Your task to perform on an android device: toggle notifications settings in the gmail app Image 0: 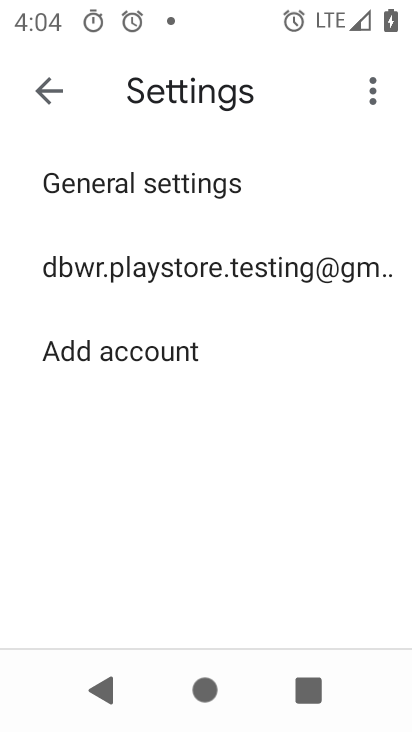
Step 0: press home button
Your task to perform on an android device: toggle notifications settings in the gmail app Image 1: 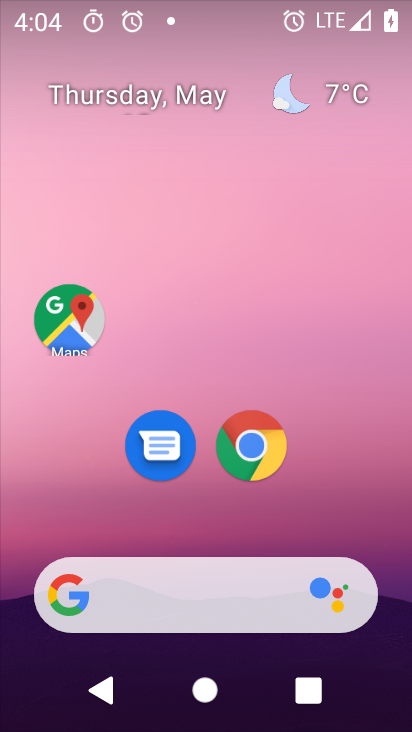
Step 1: drag from (355, 529) to (379, 6)
Your task to perform on an android device: toggle notifications settings in the gmail app Image 2: 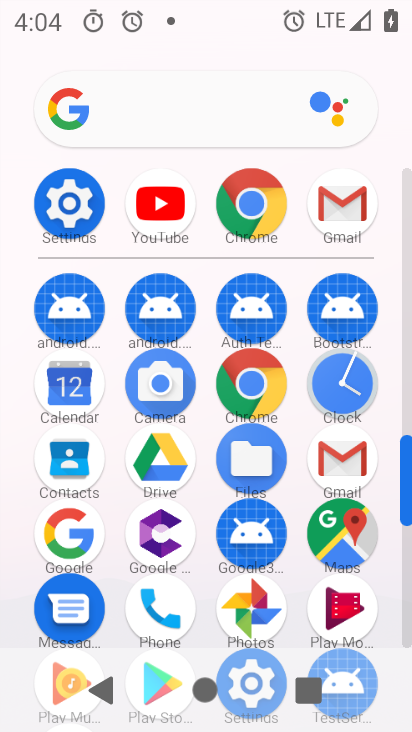
Step 2: click (345, 214)
Your task to perform on an android device: toggle notifications settings in the gmail app Image 3: 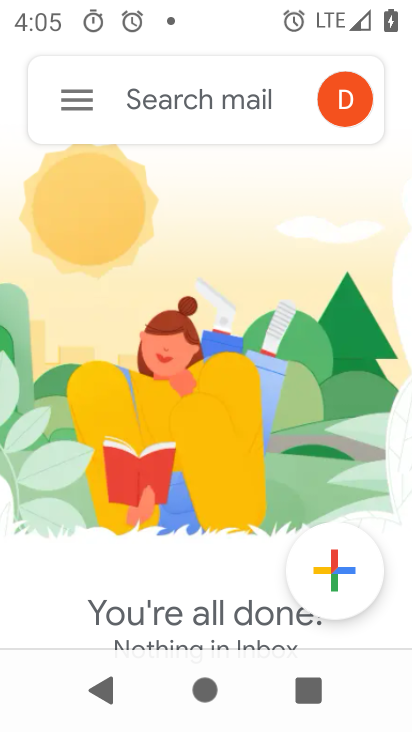
Step 3: click (75, 103)
Your task to perform on an android device: toggle notifications settings in the gmail app Image 4: 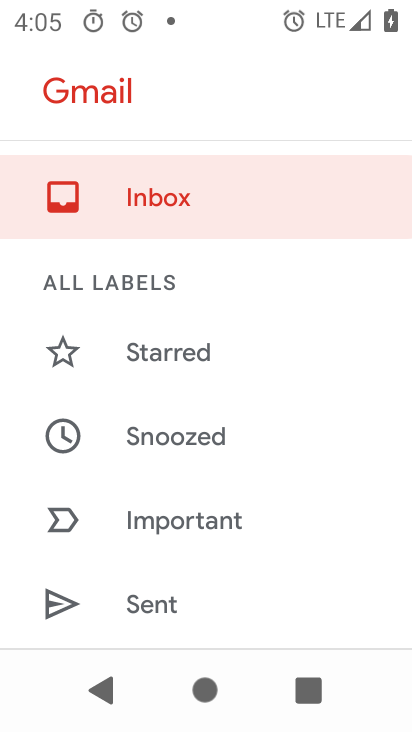
Step 4: drag from (285, 518) to (259, 134)
Your task to perform on an android device: toggle notifications settings in the gmail app Image 5: 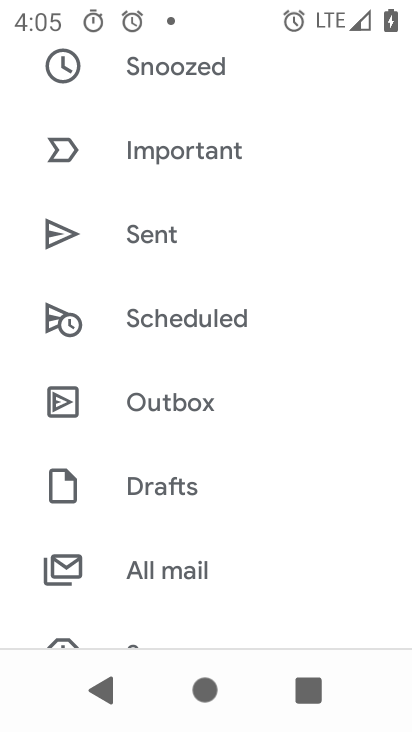
Step 5: drag from (230, 511) to (255, 164)
Your task to perform on an android device: toggle notifications settings in the gmail app Image 6: 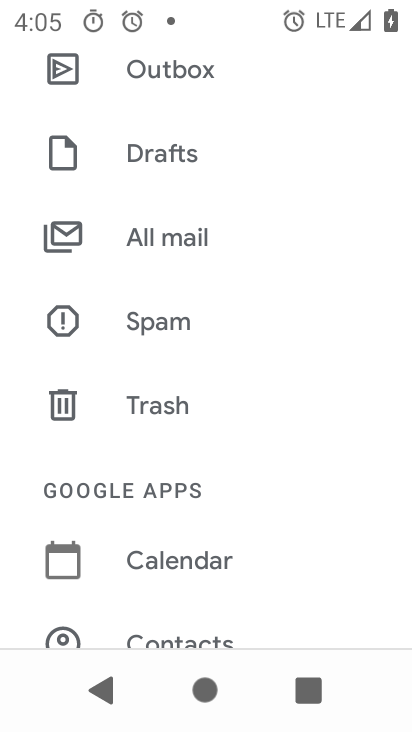
Step 6: drag from (286, 578) to (254, 151)
Your task to perform on an android device: toggle notifications settings in the gmail app Image 7: 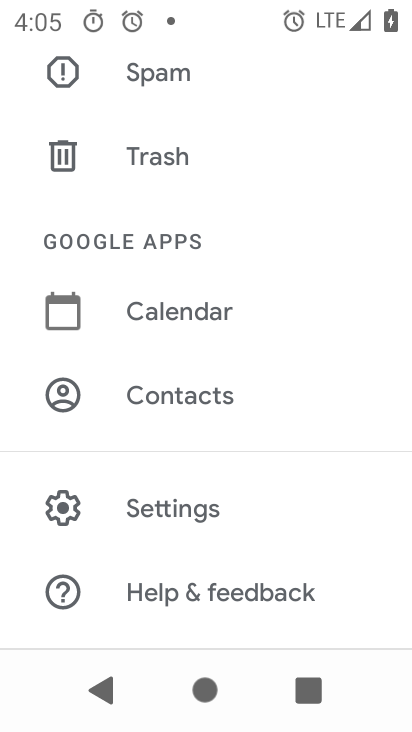
Step 7: click (160, 509)
Your task to perform on an android device: toggle notifications settings in the gmail app Image 8: 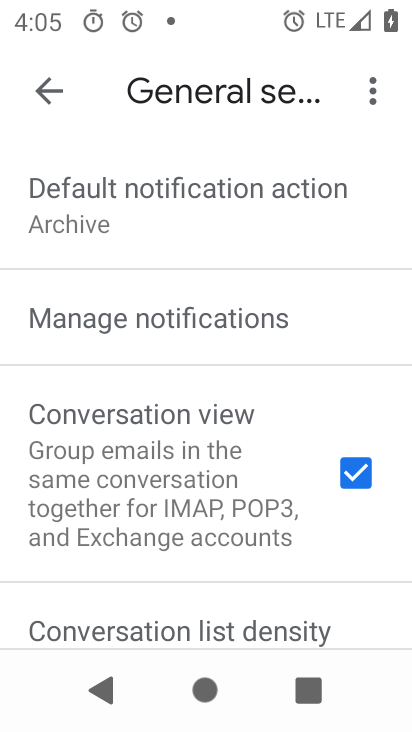
Step 8: click (129, 325)
Your task to perform on an android device: toggle notifications settings in the gmail app Image 9: 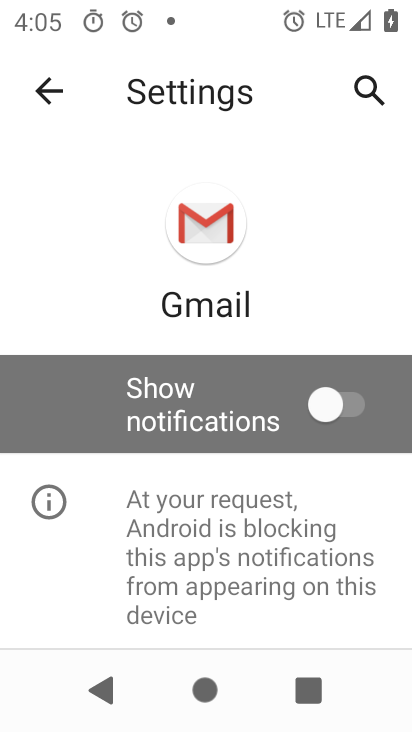
Step 9: click (325, 403)
Your task to perform on an android device: toggle notifications settings in the gmail app Image 10: 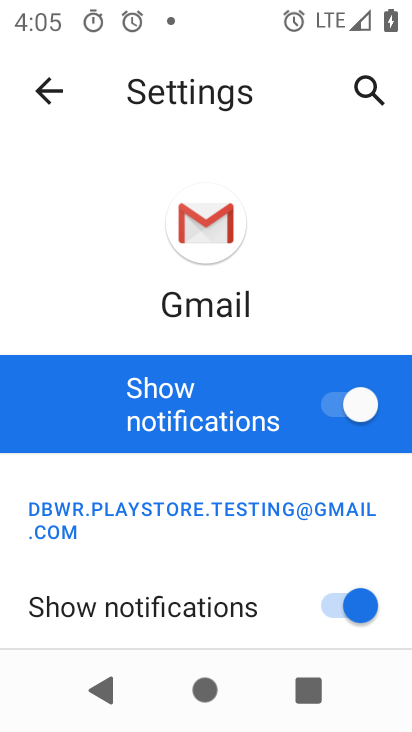
Step 10: task complete